Your task to perform on an android device: all mails in gmail Image 0: 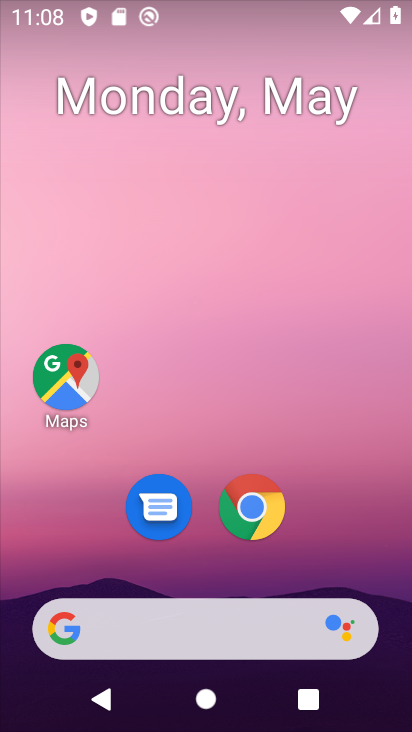
Step 0: drag from (341, 552) to (318, 250)
Your task to perform on an android device: all mails in gmail Image 1: 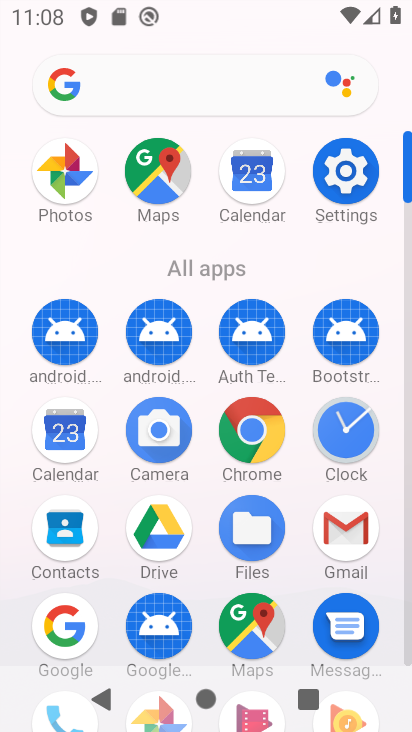
Step 1: click (343, 155)
Your task to perform on an android device: all mails in gmail Image 2: 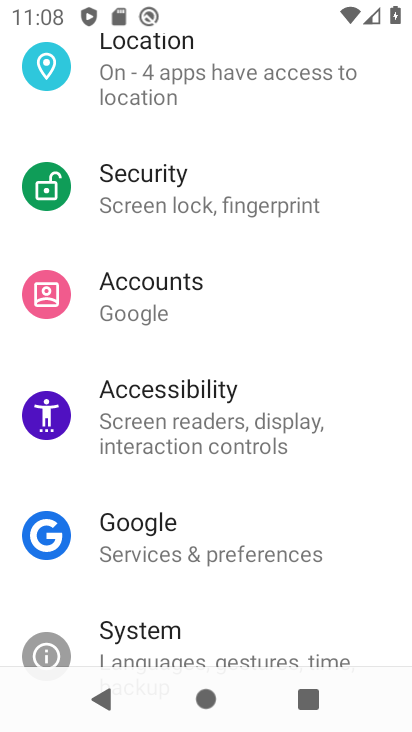
Step 2: press home button
Your task to perform on an android device: all mails in gmail Image 3: 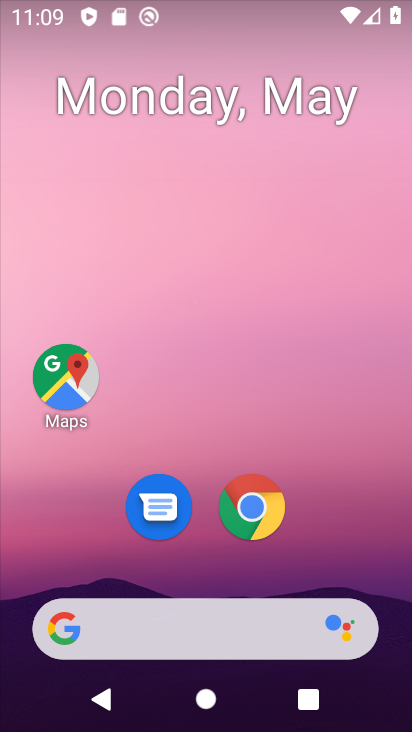
Step 3: drag from (339, 545) to (320, 260)
Your task to perform on an android device: all mails in gmail Image 4: 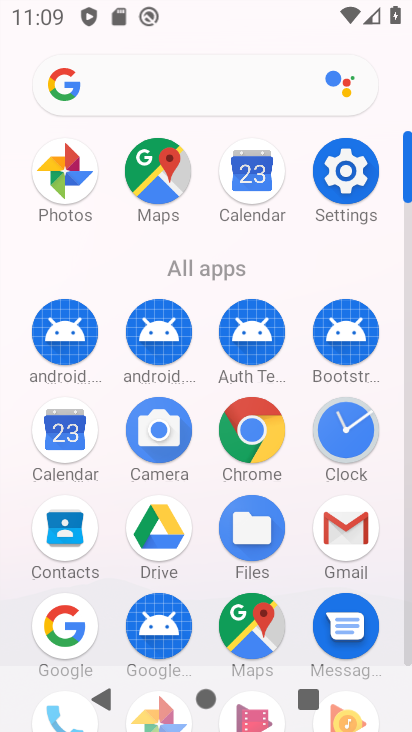
Step 4: click (340, 524)
Your task to perform on an android device: all mails in gmail Image 5: 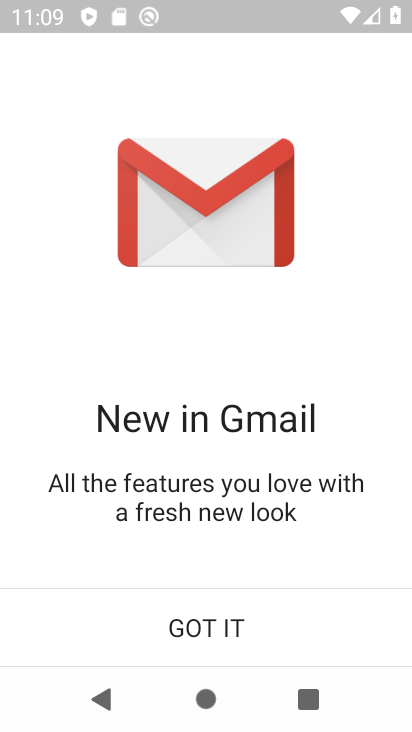
Step 5: click (227, 630)
Your task to perform on an android device: all mails in gmail Image 6: 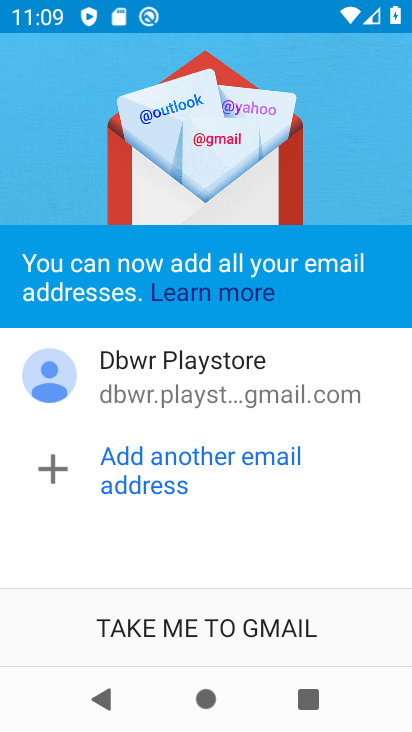
Step 6: click (258, 607)
Your task to perform on an android device: all mails in gmail Image 7: 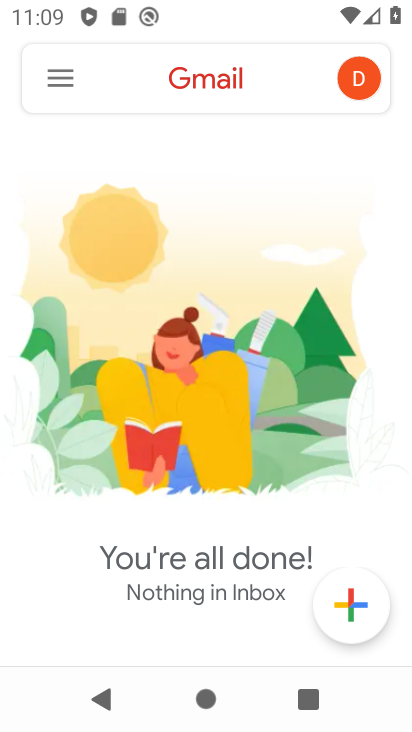
Step 7: click (58, 75)
Your task to perform on an android device: all mails in gmail Image 8: 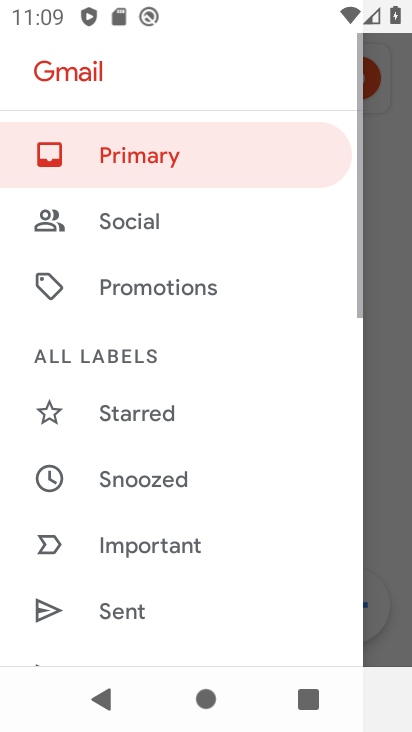
Step 8: drag from (174, 586) to (197, 308)
Your task to perform on an android device: all mails in gmail Image 9: 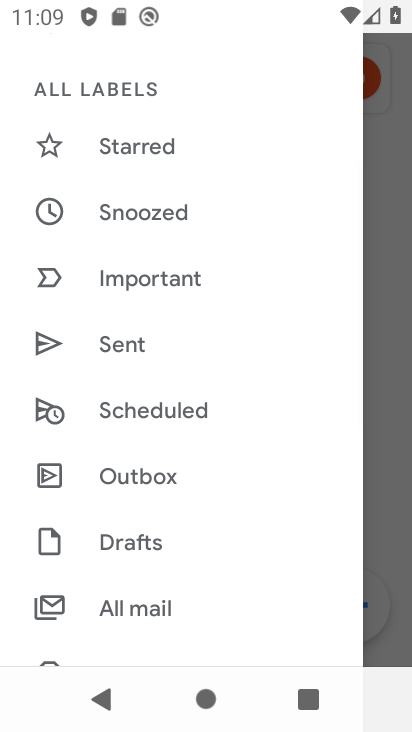
Step 9: click (129, 612)
Your task to perform on an android device: all mails in gmail Image 10: 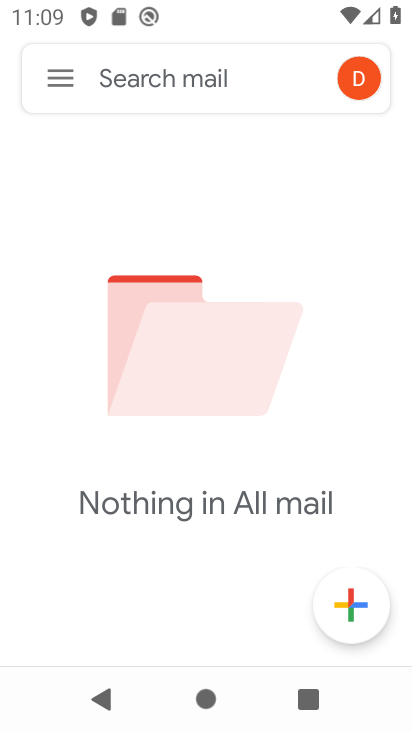
Step 10: task complete